Your task to perform on an android device: check out phone information Image 0: 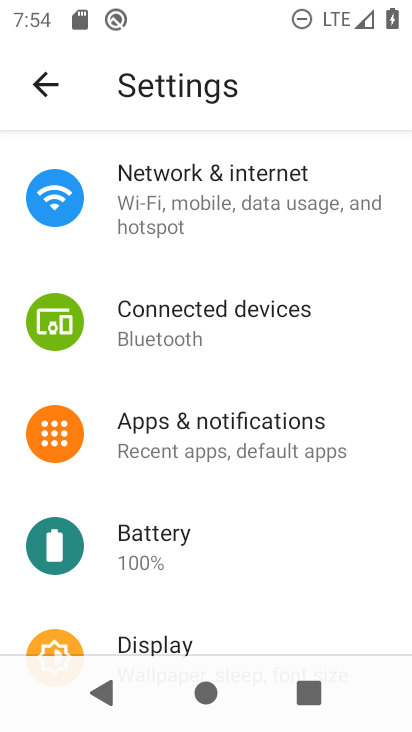
Step 0: press home button
Your task to perform on an android device: check out phone information Image 1: 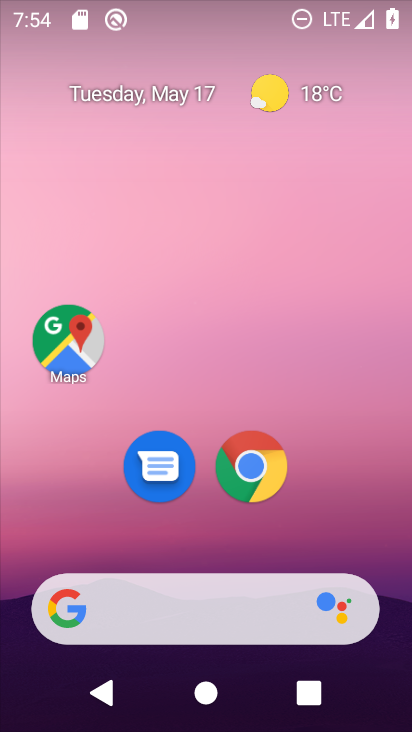
Step 1: drag from (171, 594) to (287, 76)
Your task to perform on an android device: check out phone information Image 2: 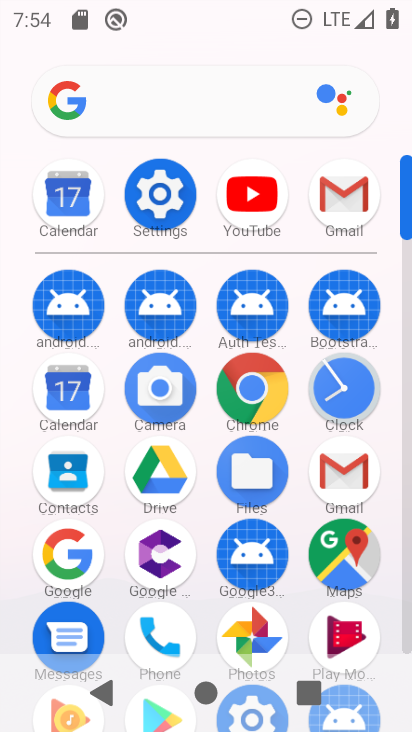
Step 2: click (156, 197)
Your task to perform on an android device: check out phone information Image 3: 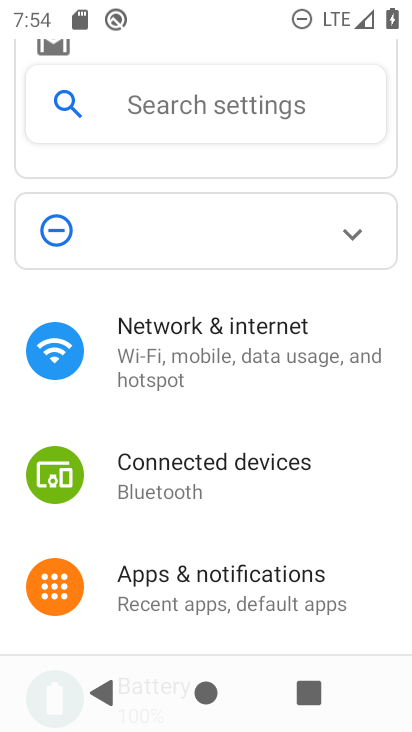
Step 3: drag from (236, 624) to (303, 267)
Your task to perform on an android device: check out phone information Image 4: 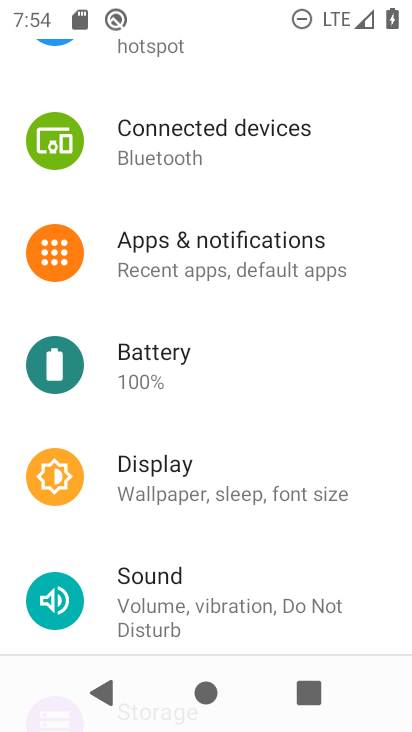
Step 4: drag from (237, 616) to (332, 147)
Your task to perform on an android device: check out phone information Image 5: 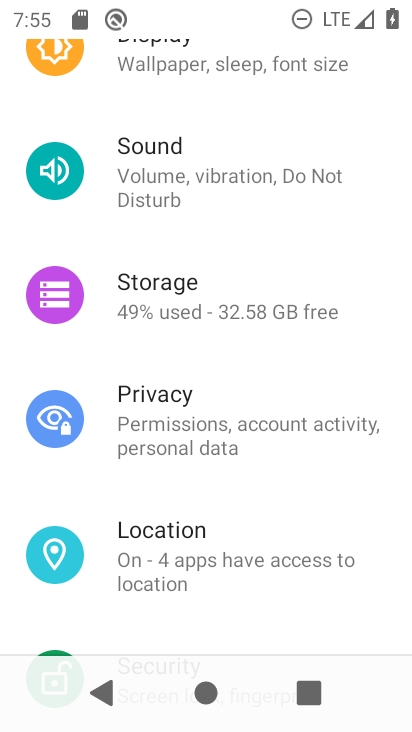
Step 5: drag from (213, 634) to (278, 137)
Your task to perform on an android device: check out phone information Image 6: 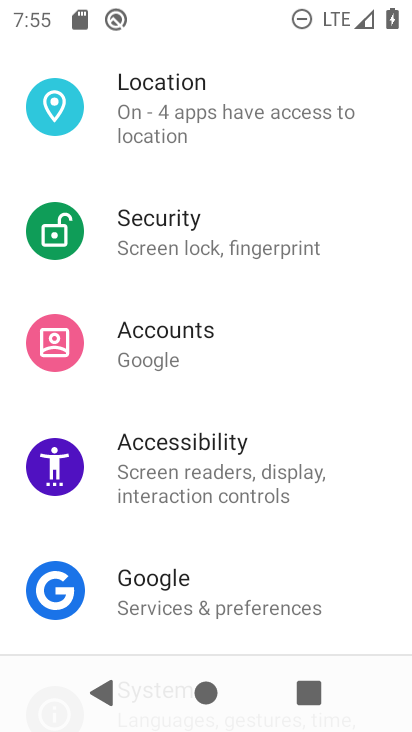
Step 6: drag from (244, 566) to (292, 96)
Your task to perform on an android device: check out phone information Image 7: 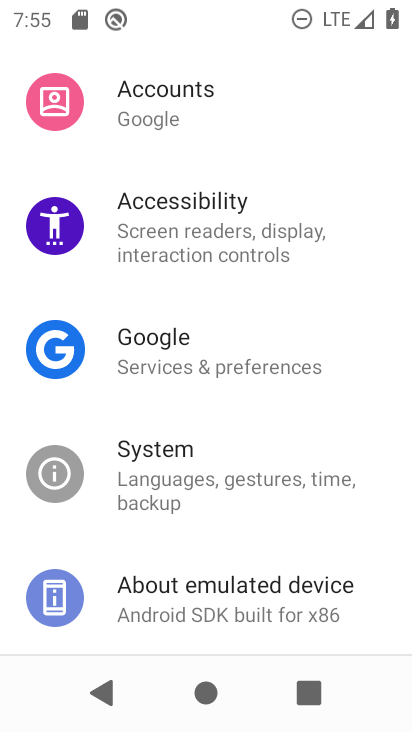
Step 7: click (203, 600)
Your task to perform on an android device: check out phone information Image 8: 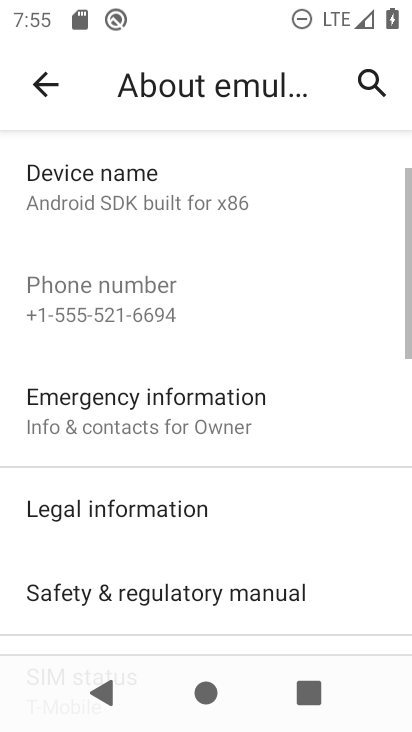
Step 8: task complete